Your task to perform on an android device: open app "Google Calendar" (install if not already installed) Image 0: 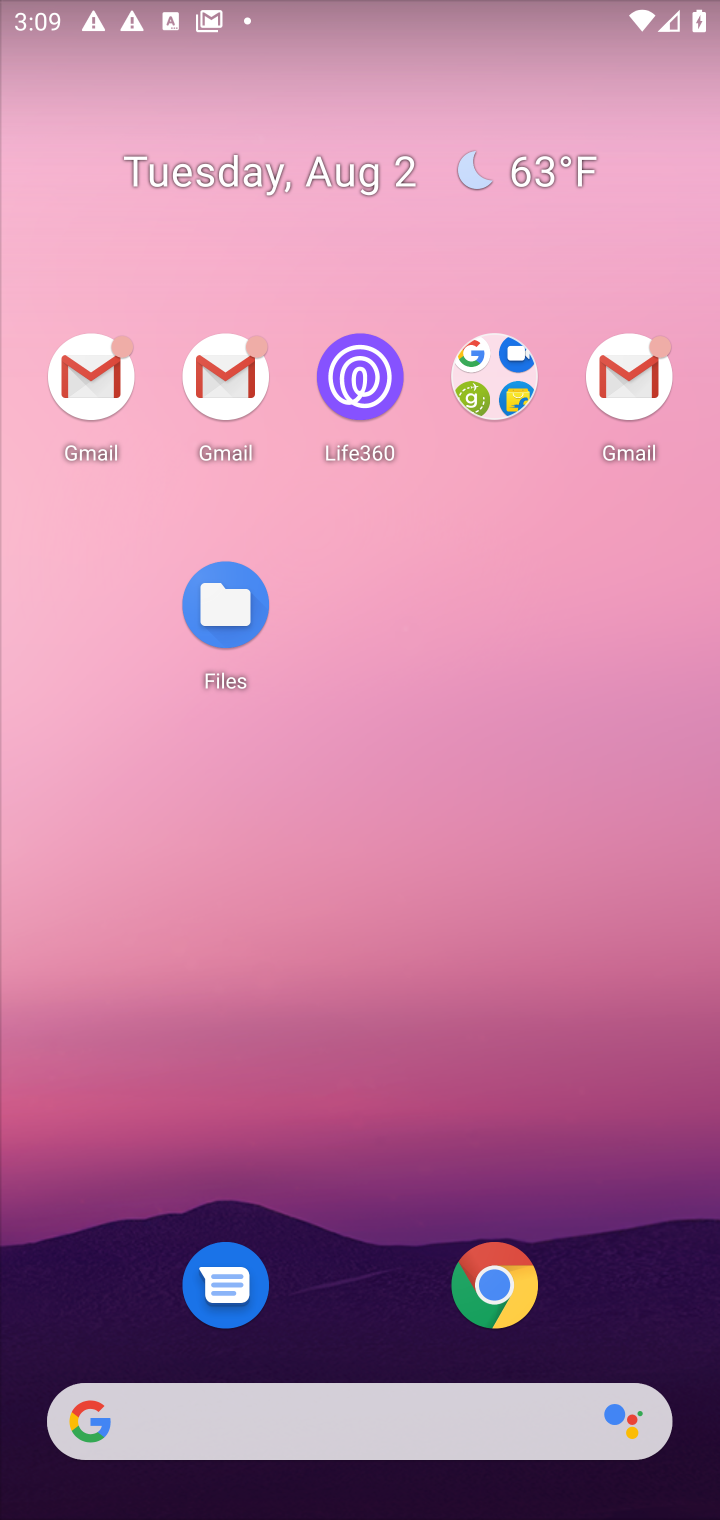
Step 0: drag from (455, 763) to (473, 2)
Your task to perform on an android device: open app "Google Calendar" (install if not already installed) Image 1: 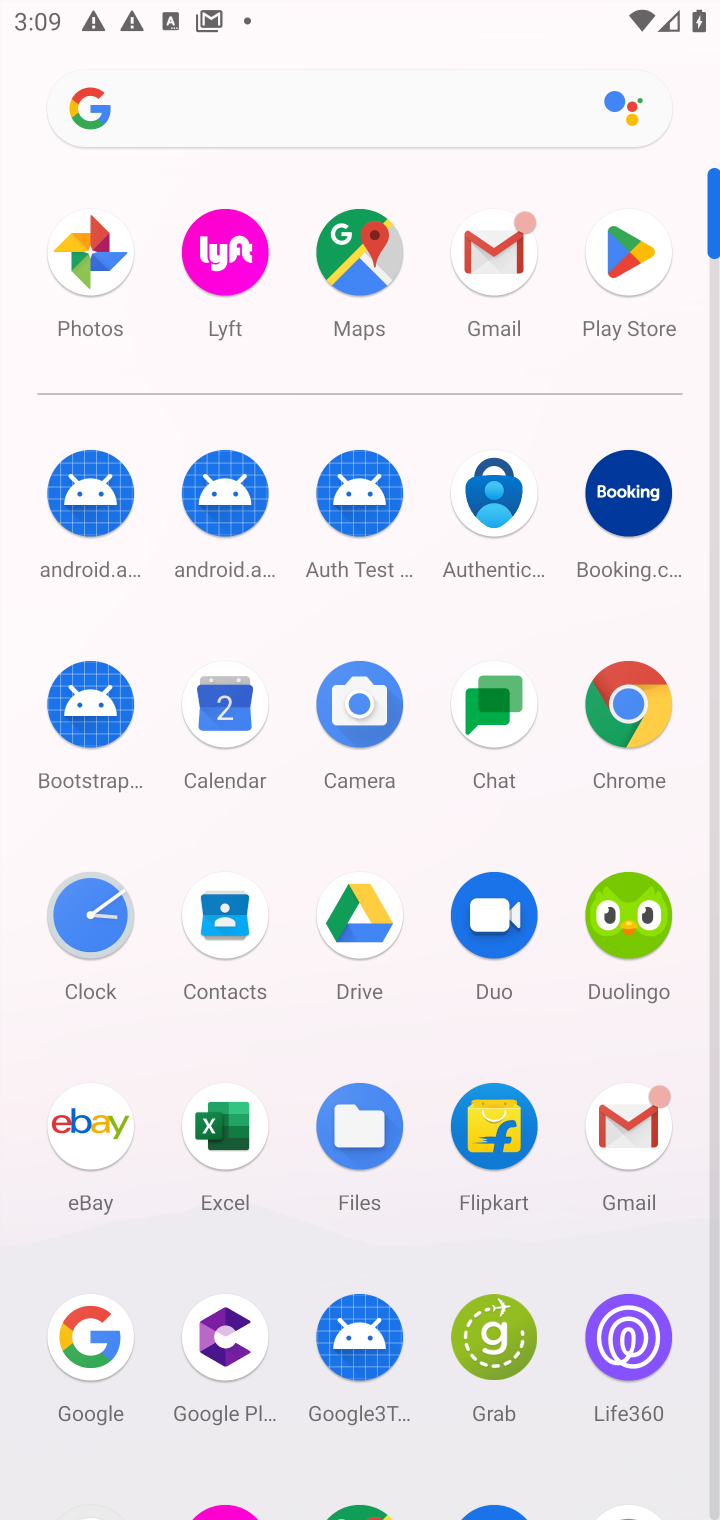
Step 1: drag from (420, 1257) to (416, 895)
Your task to perform on an android device: open app "Google Calendar" (install if not already installed) Image 2: 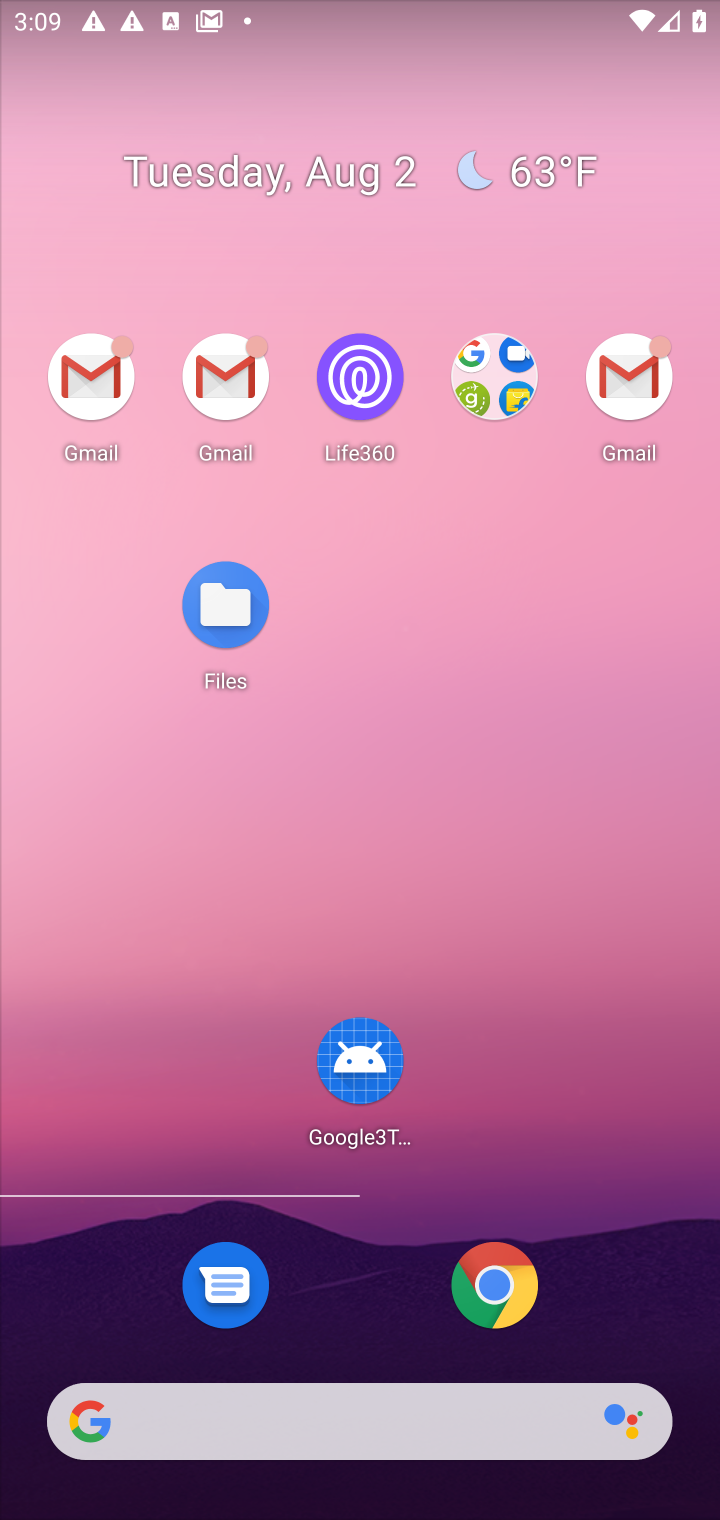
Step 2: drag from (573, 1041) to (577, 249)
Your task to perform on an android device: open app "Google Calendar" (install if not already installed) Image 3: 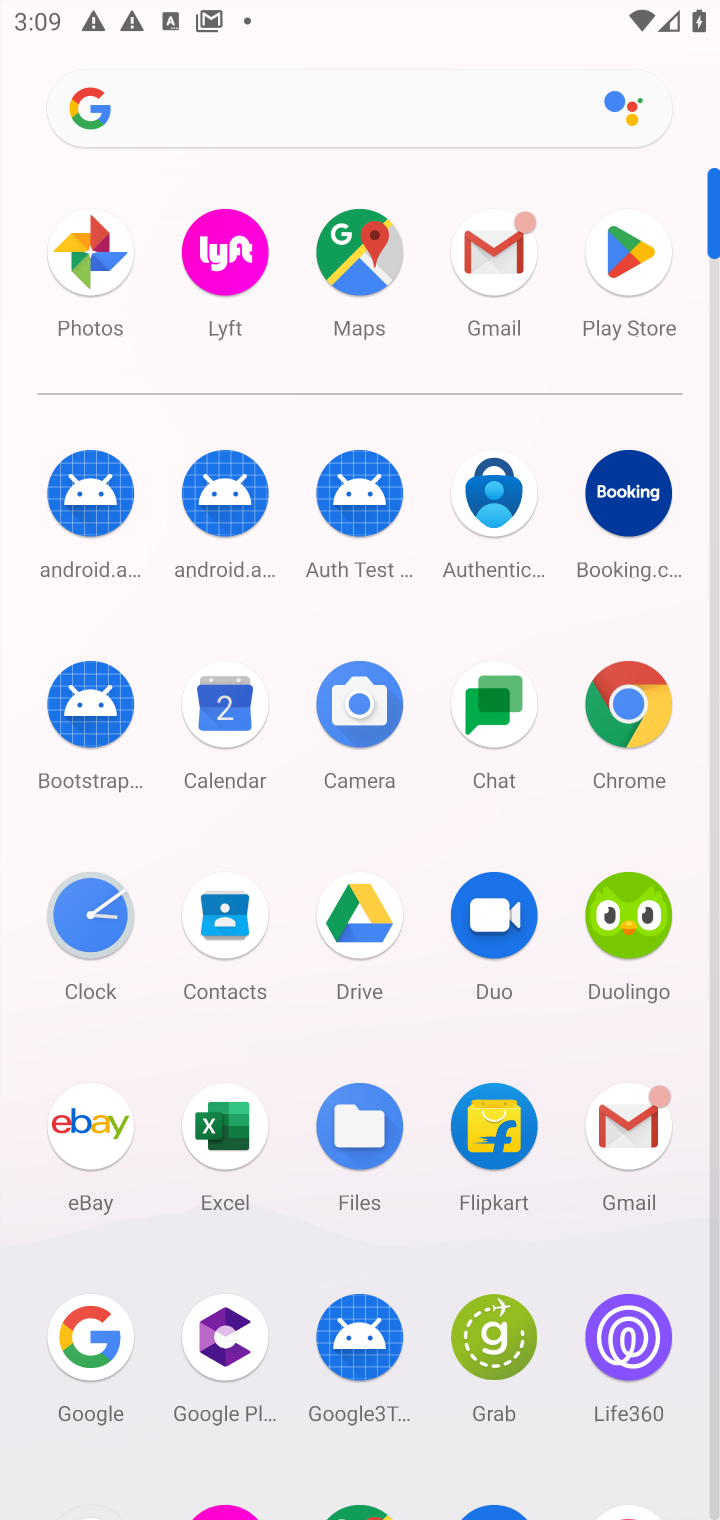
Step 3: drag from (418, 1197) to (428, 560)
Your task to perform on an android device: open app "Google Calendar" (install if not already installed) Image 4: 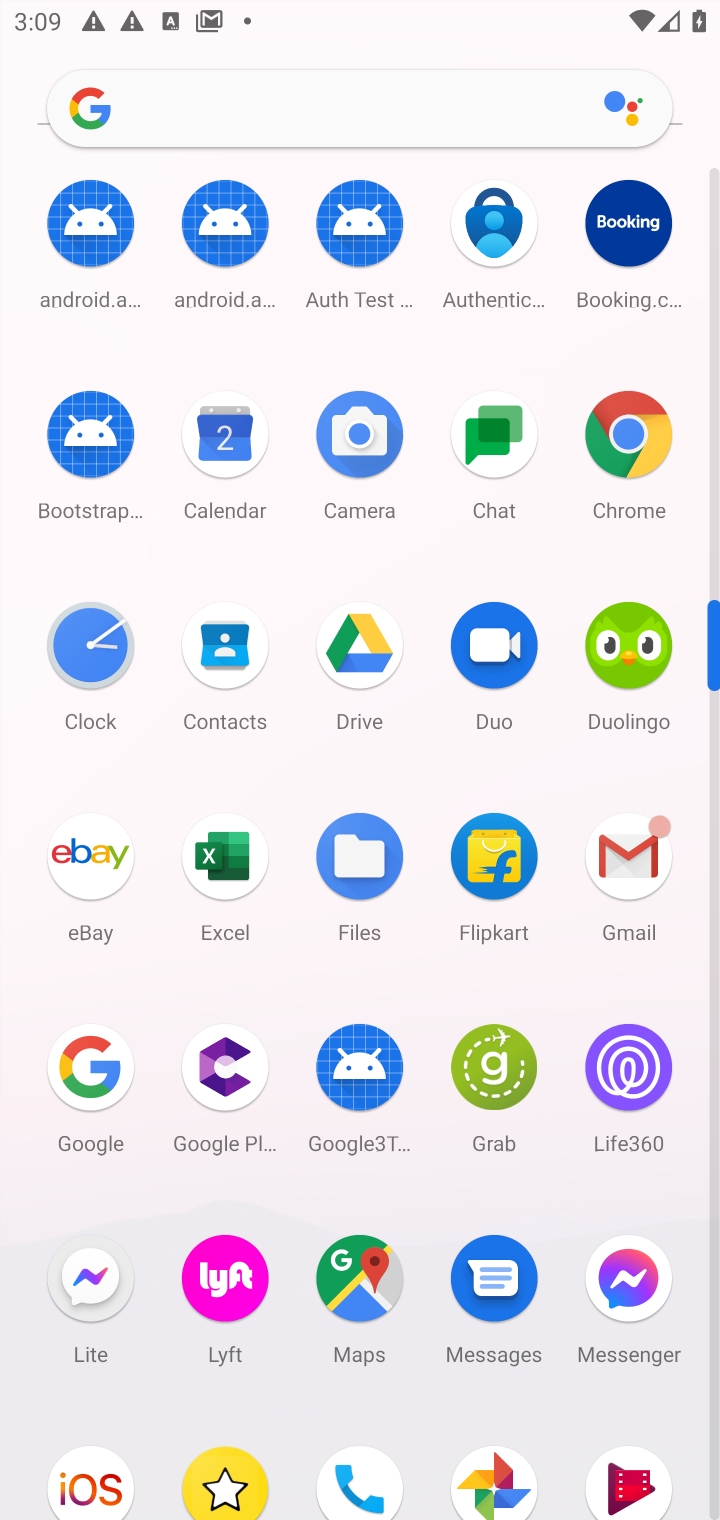
Step 4: drag from (427, 1194) to (461, 496)
Your task to perform on an android device: open app "Google Calendar" (install if not already installed) Image 5: 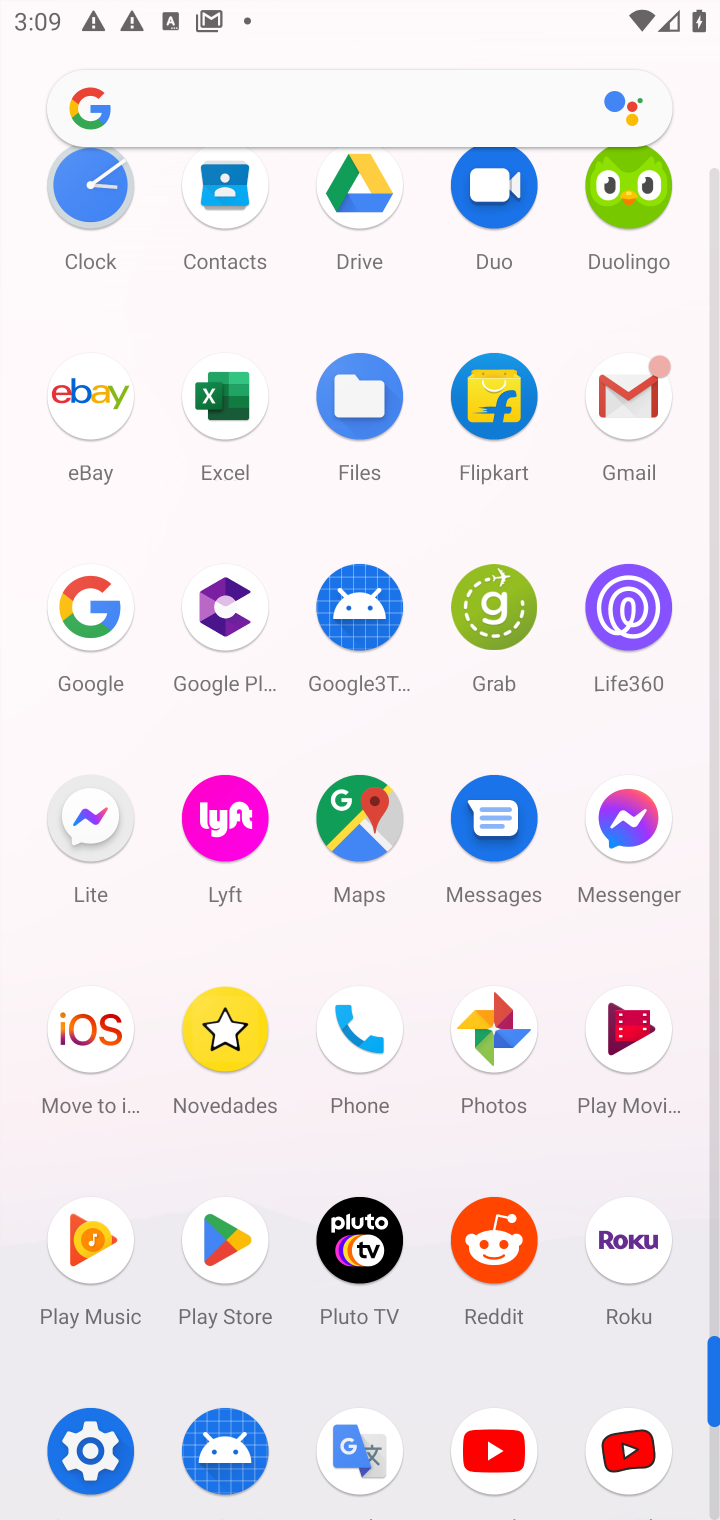
Step 5: click (221, 1246)
Your task to perform on an android device: open app "Google Calendar" (install if not already installed) Image 6: 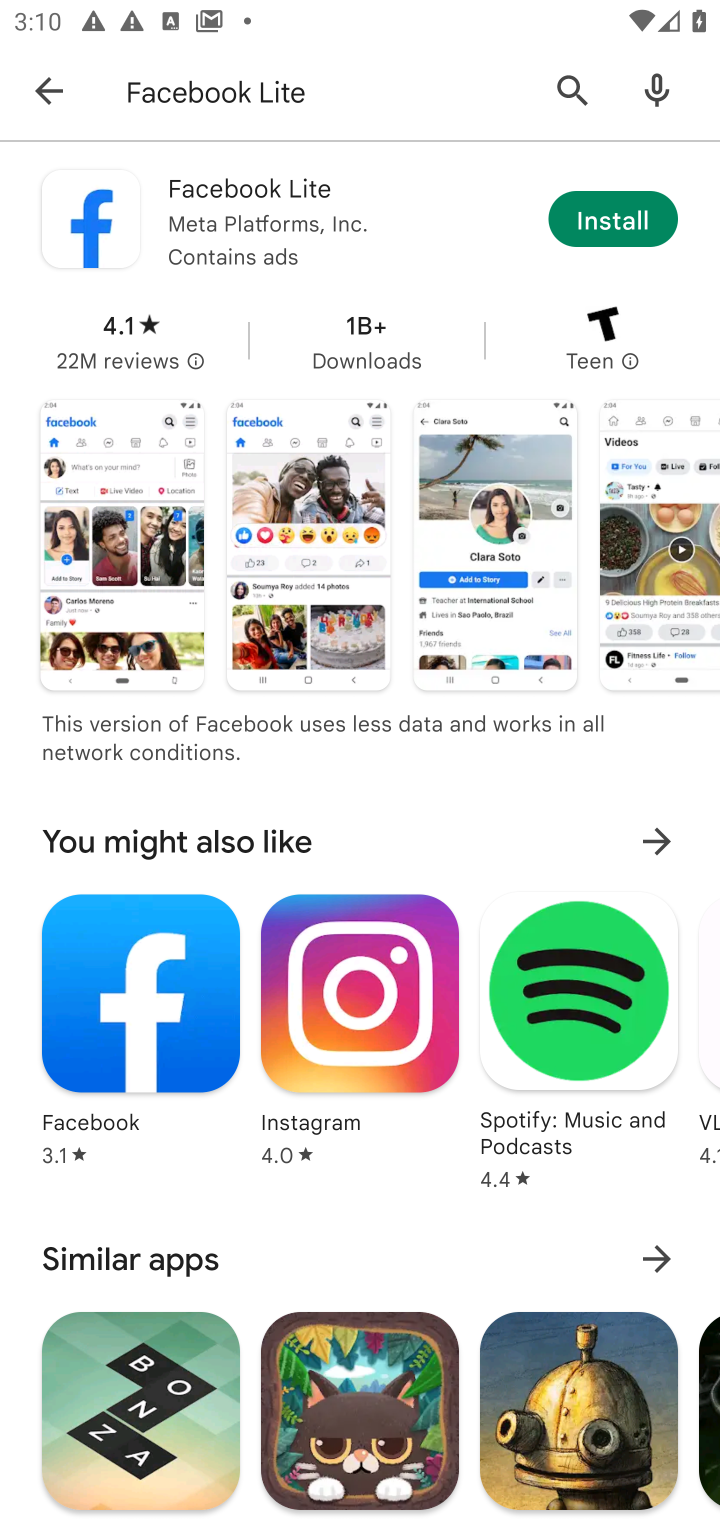
Step 6: click (434, 88)
Your task to perform on an android device: open app "Google Calendar" (install if not already installed) Image 7: 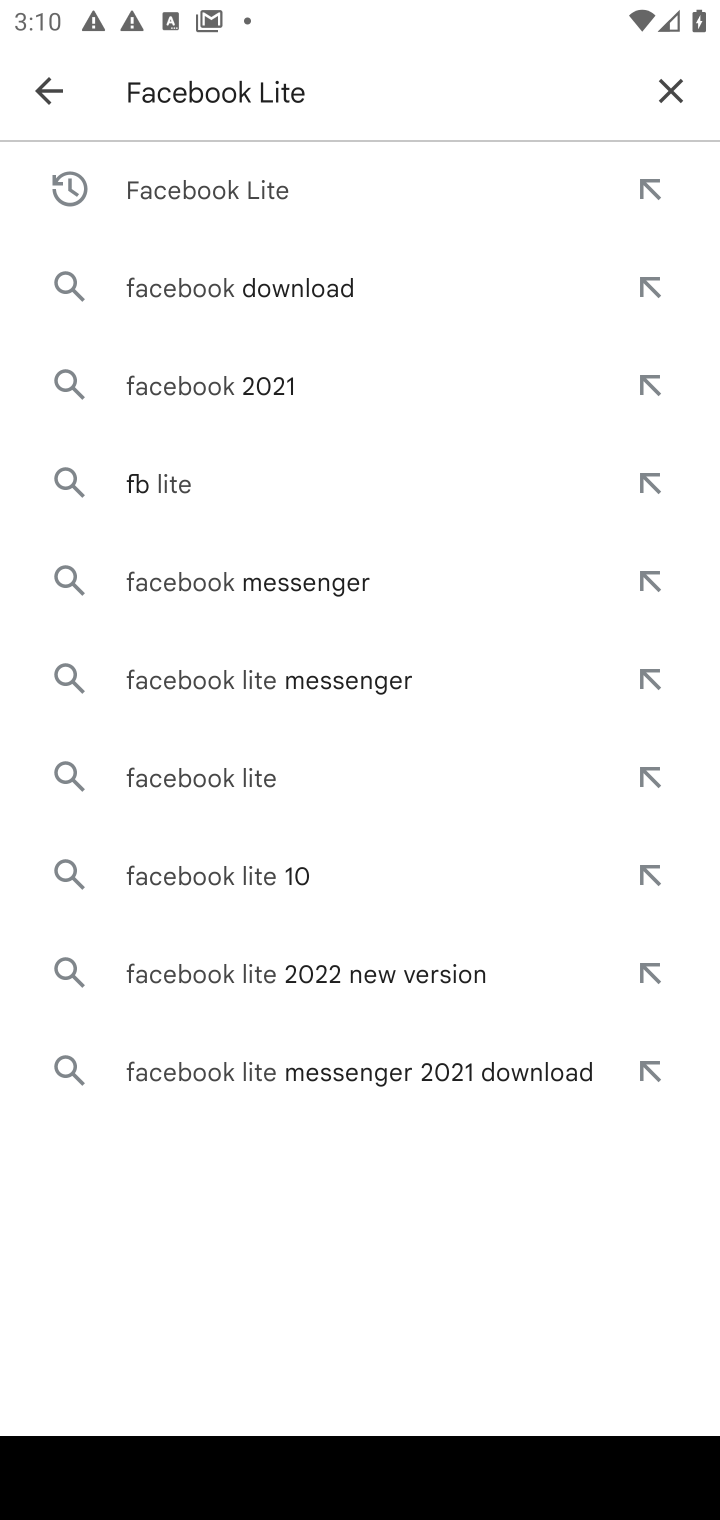
Step 7: click (660, 90)
Your task to perform on an android device: open app "Google Calendar" (install if not already installed) Image 8: 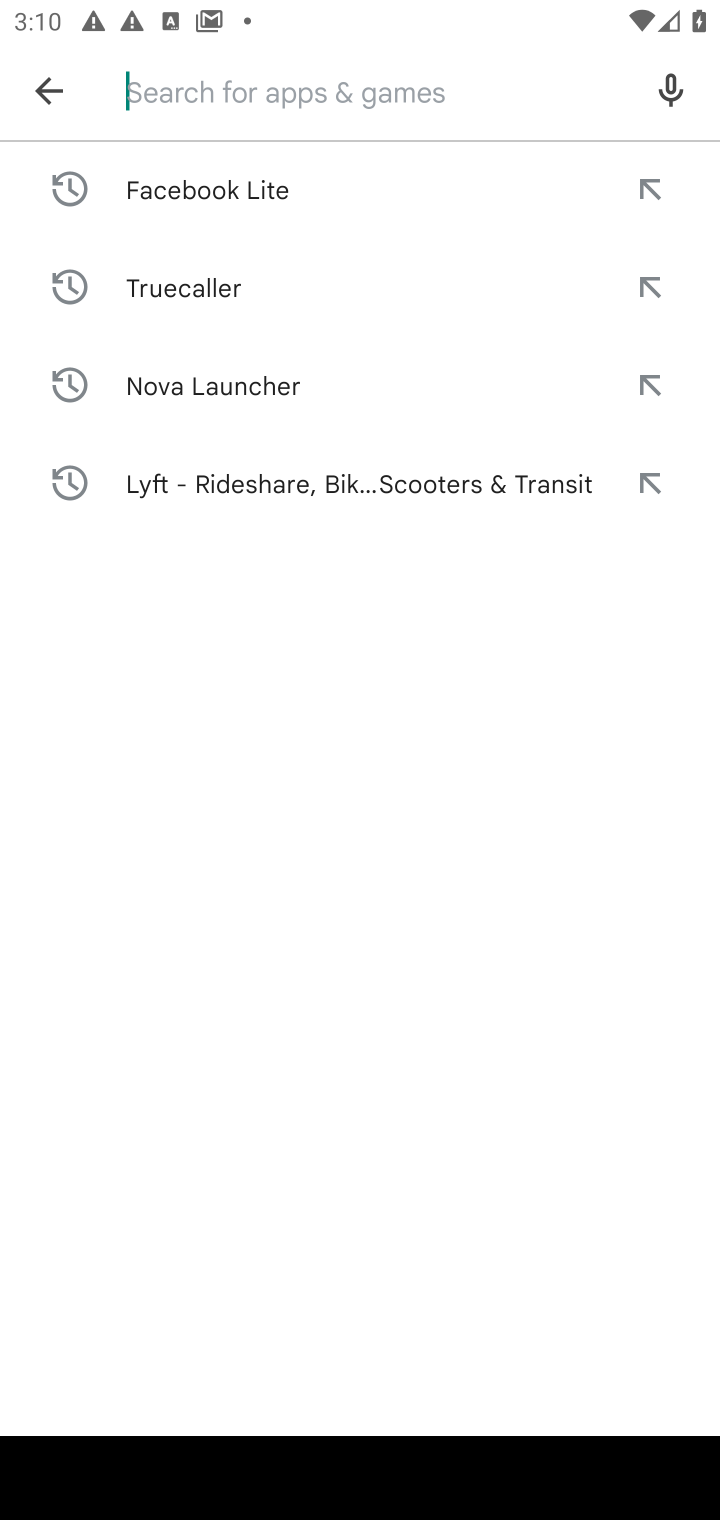
Step 8: type "Google Calendar"
Your task to perform on an android device: open app "Google Calendar" (install if not already installed) Image 9: 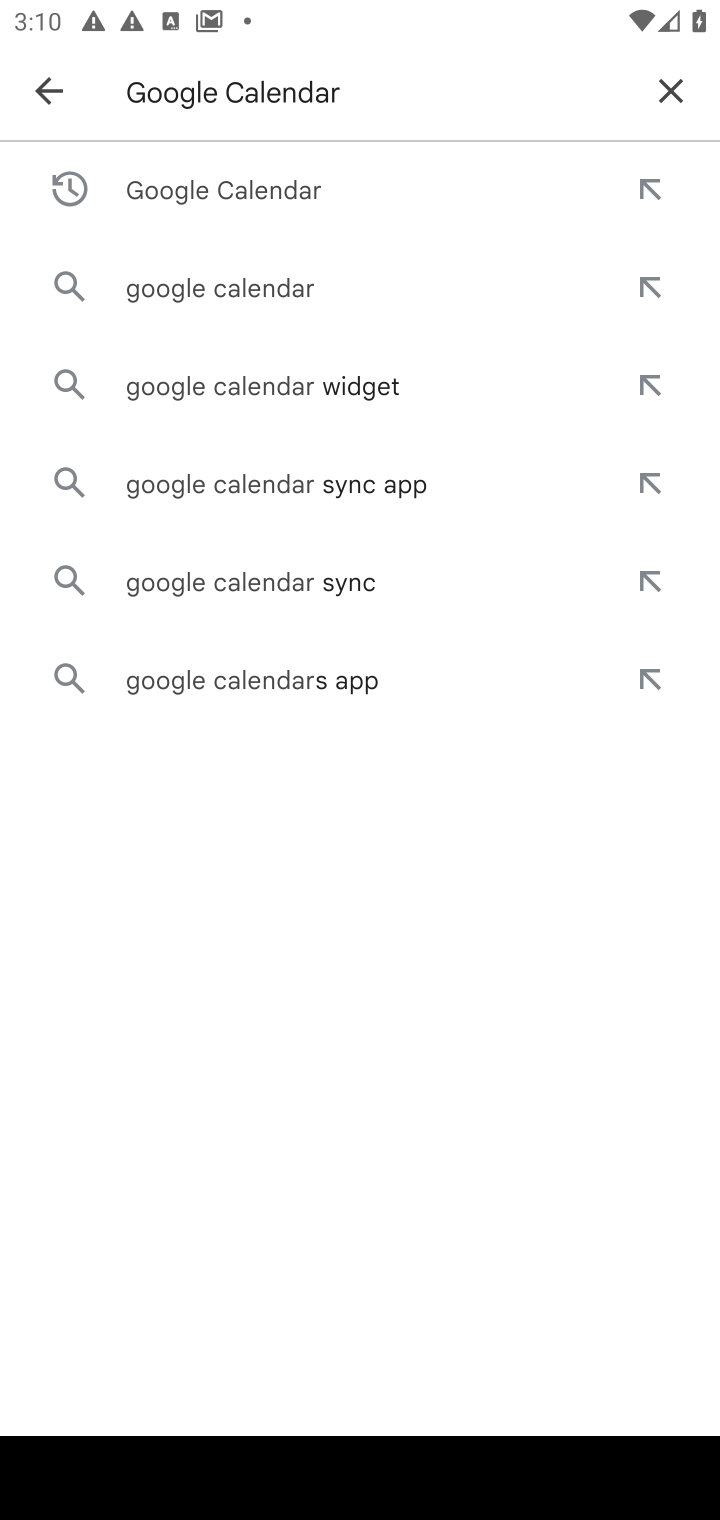
Step 9: press enter
Your task to perform on an android device: open app "Google Calendar" (install if not already installed) Image 10: 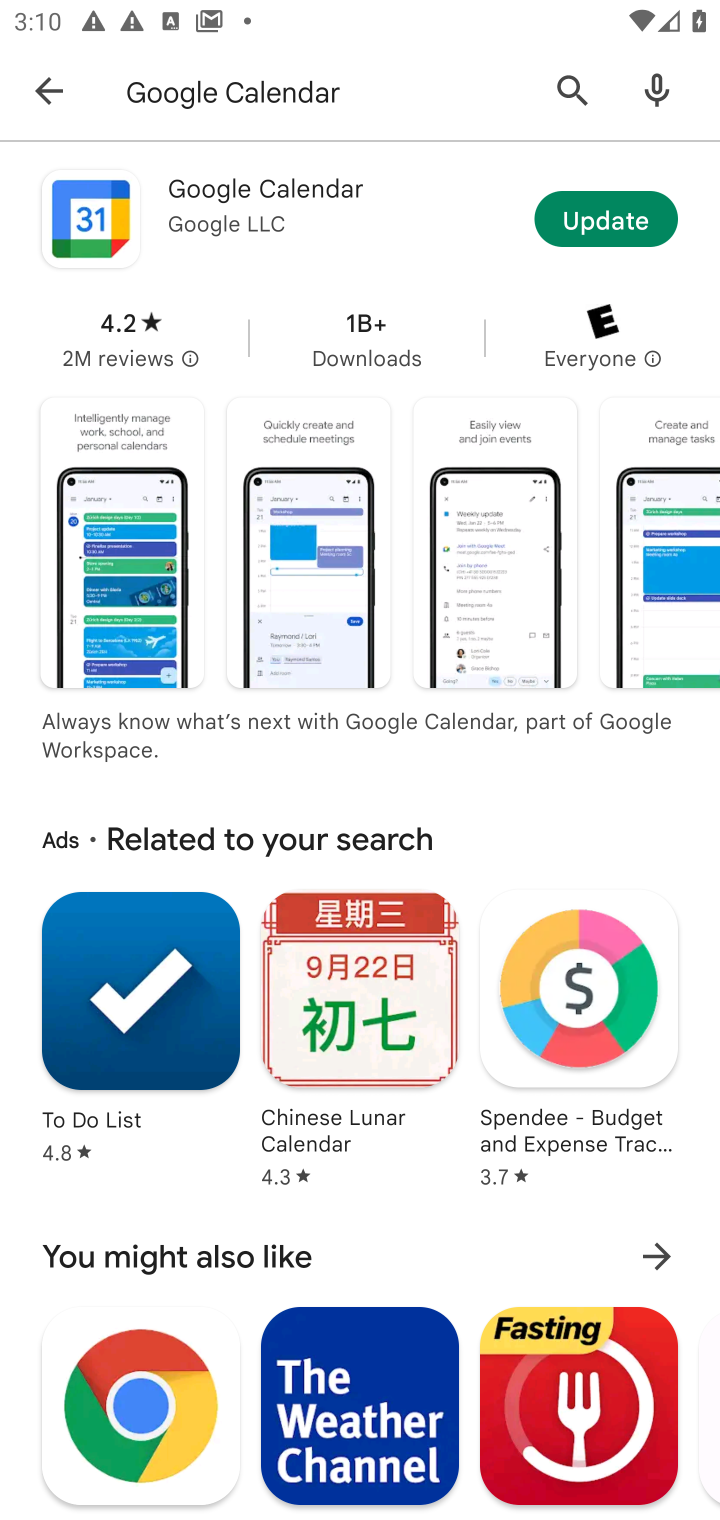
Step 10: click (306, 204)
Your task to perform on an android device: open app "Google Calendar" (install if not already installed) Image 11: 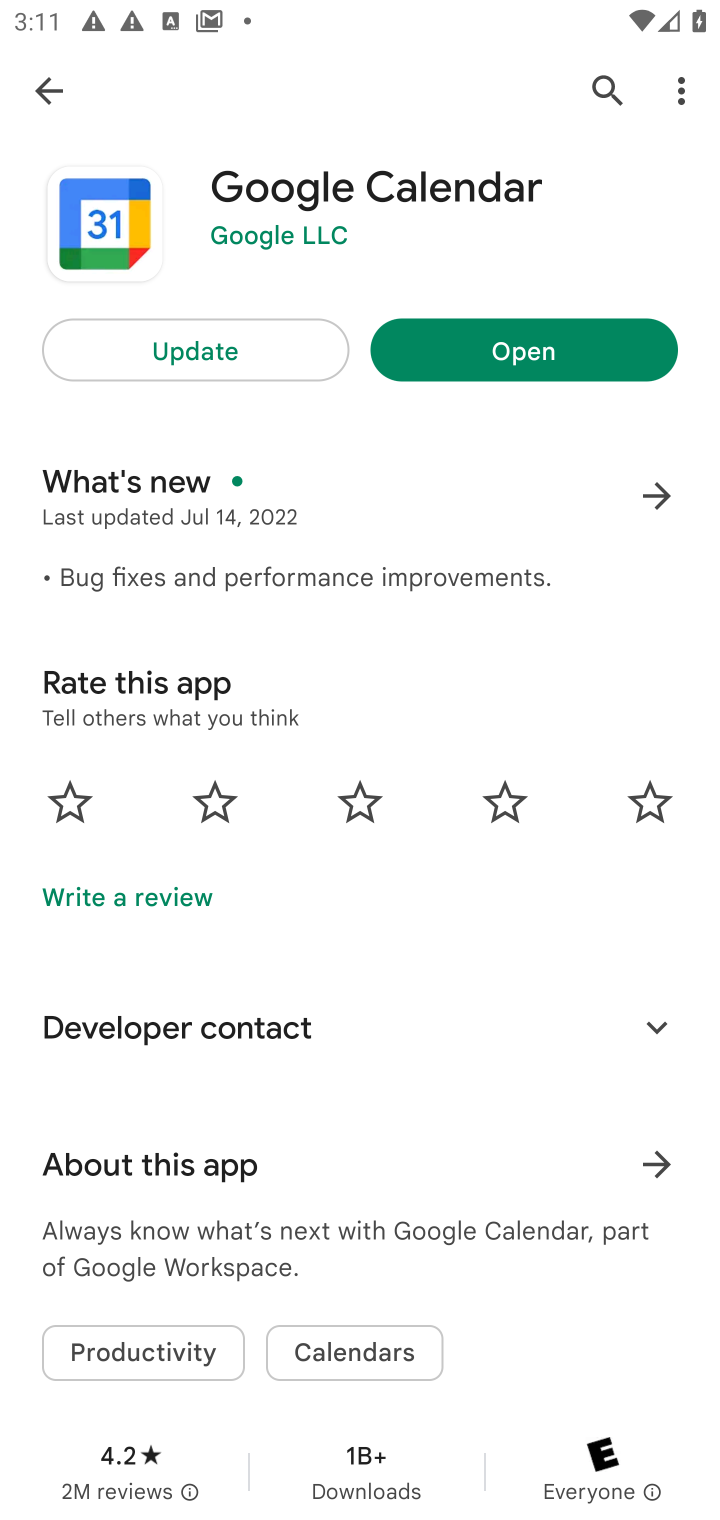
Step 11: click (572, 359)
Your task to perform on an android device: open app "Google Calendar" (install if not already installed) Image 12: 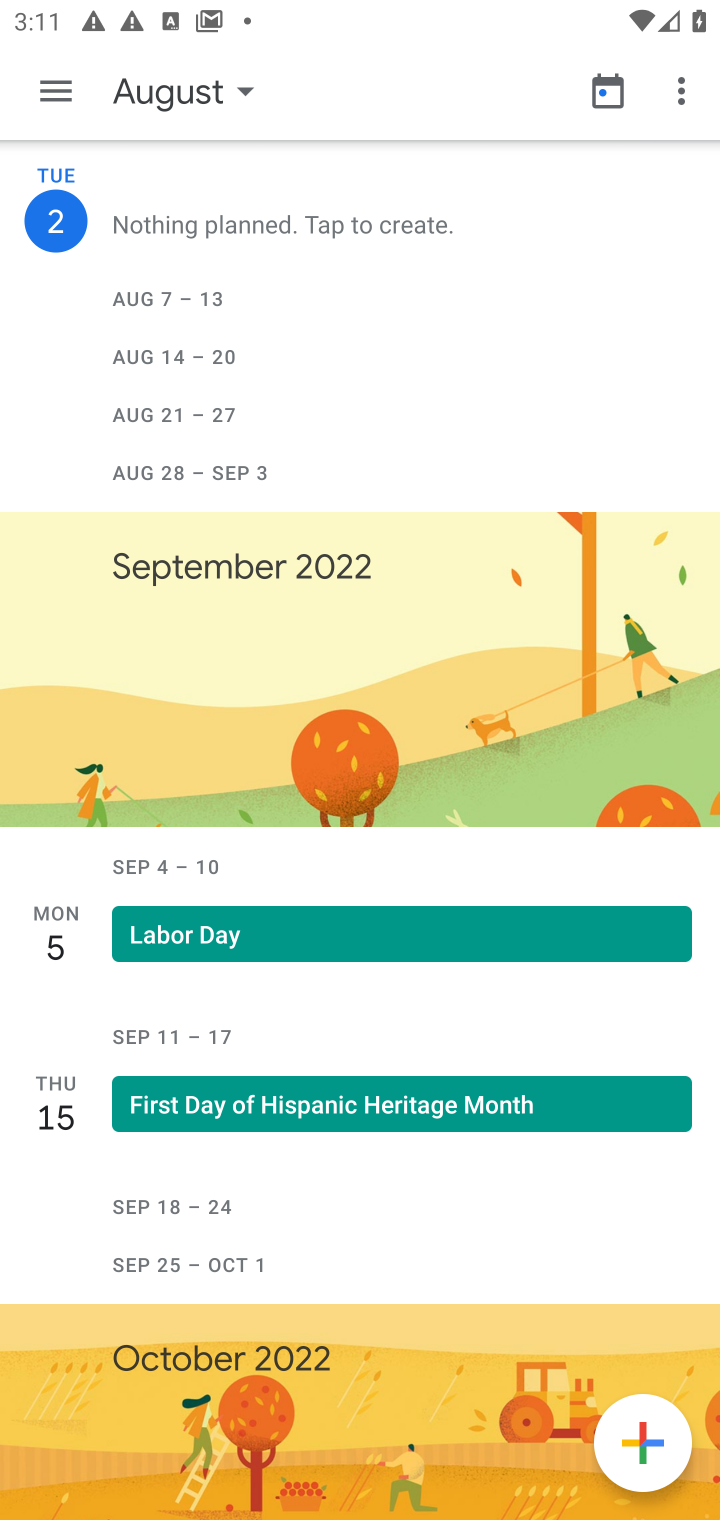
Step 12: task complete